Your task to perform on an android device: turn on bluetooth scan Image 0: 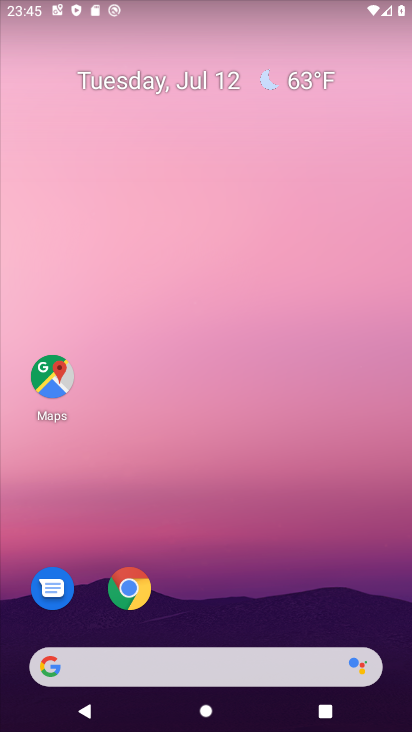
Step 0: click (126, 608)
Your task to perform on an android device: turn on bluetooth scan Image 1: 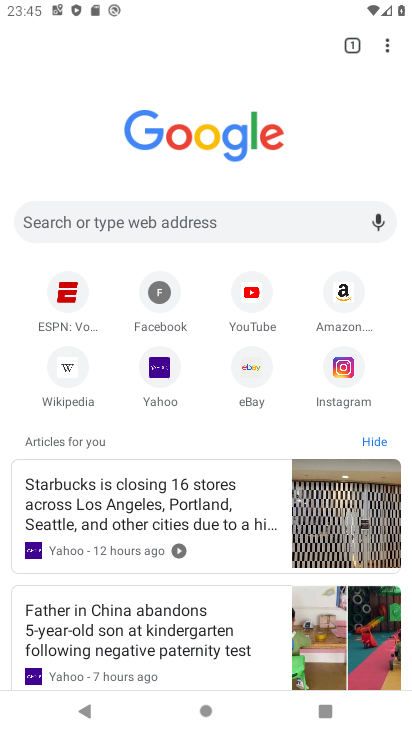
Step 1: click (386, 36)
Your task to perform on an android device: turn on bluetooth scan Image 2: 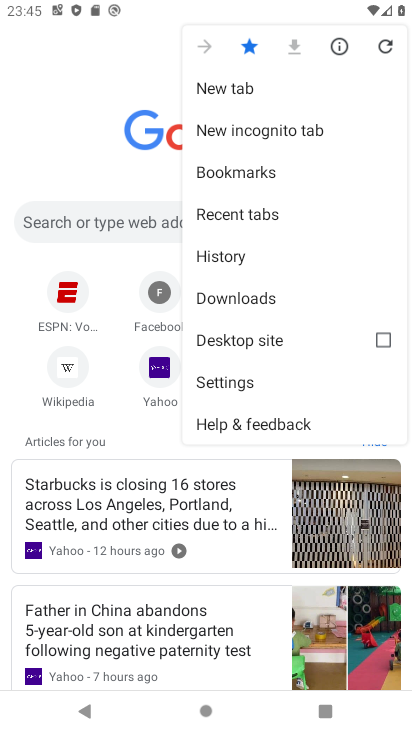
Step 2: press home button
Your task to perform on an android device: turn on bluetooth scan Image 3: 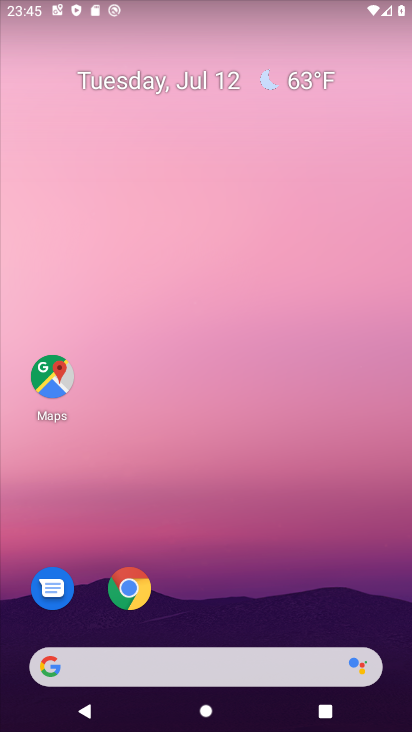
Step 3: drag from (29, 703) to (255, 1)
Your task to perform on an android device: turn on bluetooth scan Image 4: 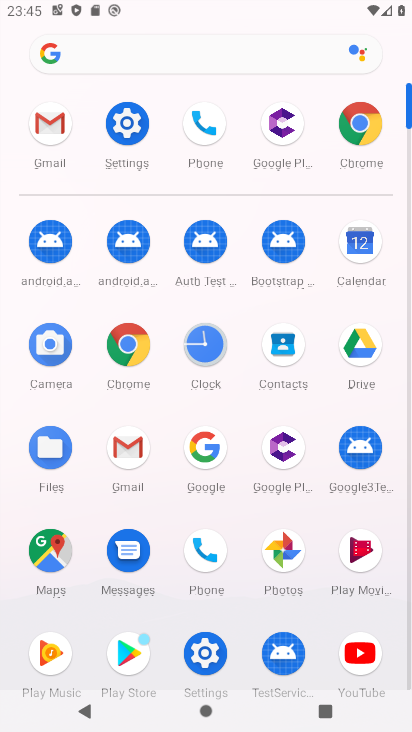
Step 4: click (195, 657)
Your task to perform on an android device: turn on bluetooth scan Image 5: 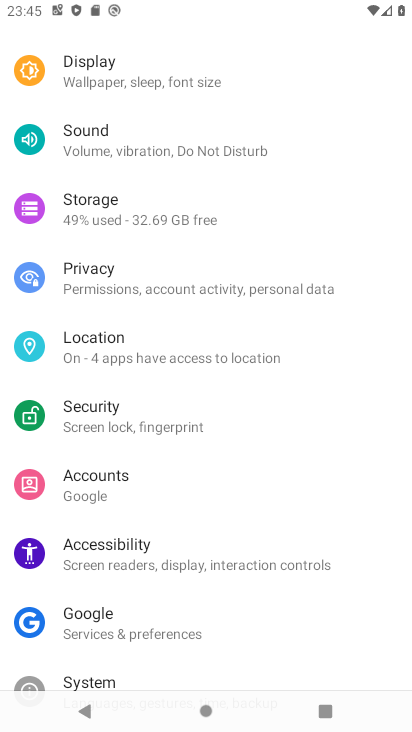
Step 5: drag from (312, 30) to (310, 572)
Your task to perform on an android device: turn on bluetooth scan Image 6: 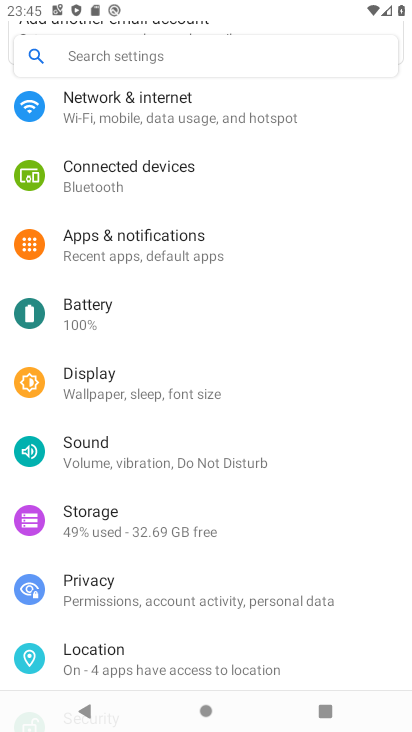
Step 6: click (136, 172)
Your task to perform on an android device: turn on bluetooth scan Image 7: 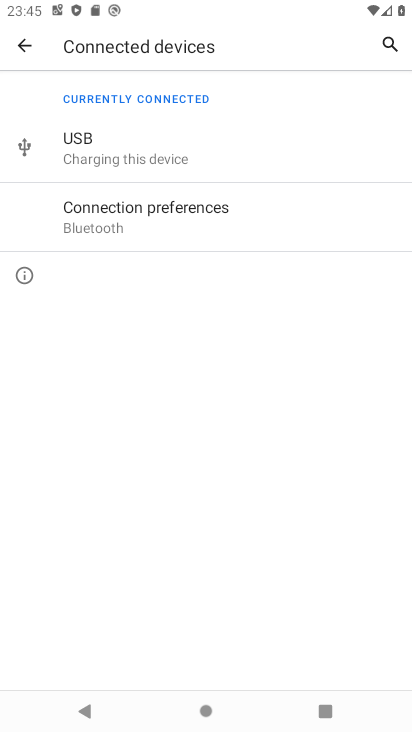
Step 7: click (97, 226)
Your task to perform on an android device: turn on bluetooth scan Image 8: 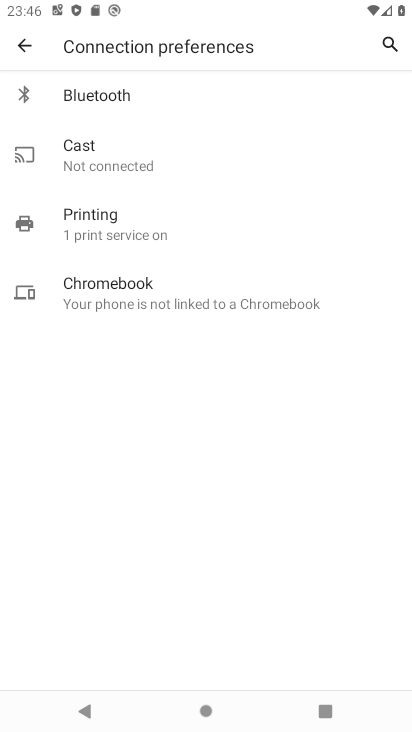
Step 8: click (113, 89)
Your task to perform on an android device: turn on bluetooth scan Image 9: 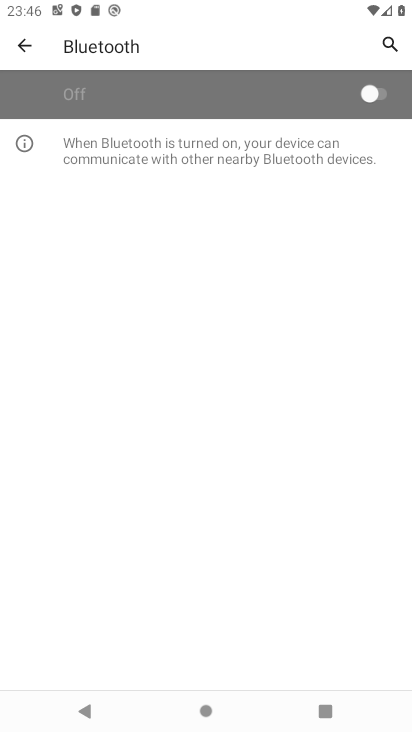
Step 9: click (372, 100)
Your task to perform on an android device: turn on bluetooth scan Image 10: 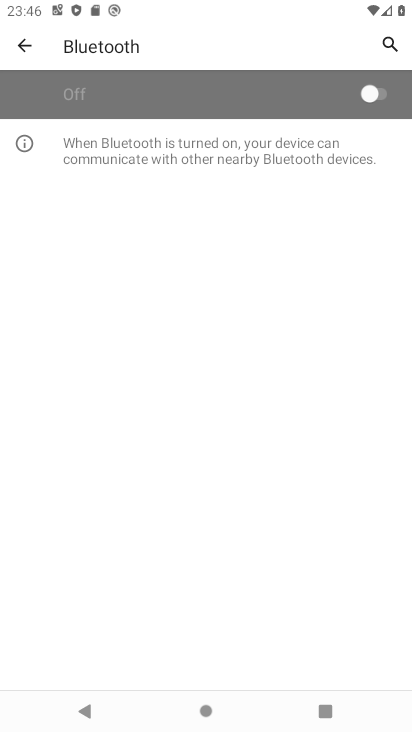
Step 10: task complete